Your task to perform on an android device: Open Yahoo.com Image 0: 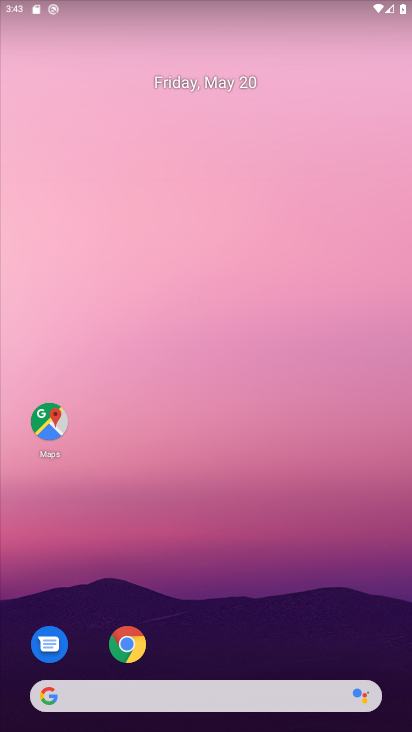
Step 0: drag from (261, 704) to (326, 99)
Your task to perform on an android device: Open Yahoo.com Image 1: 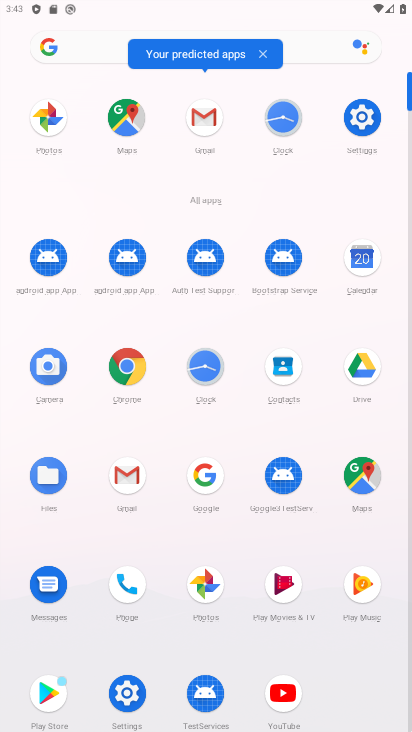
Step 1: click (125, 363)
Your task to perform on an android device: Open Yahoo.com Image 2: 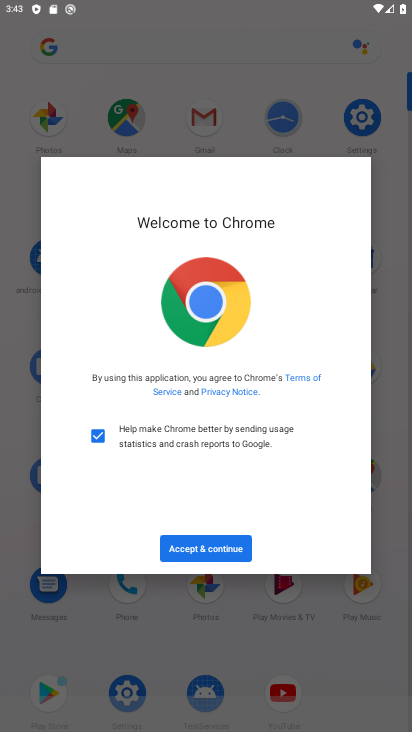
Step 2: click (195, 546)
Your task to perform on an android device: Open Yahoo.com Image 3: 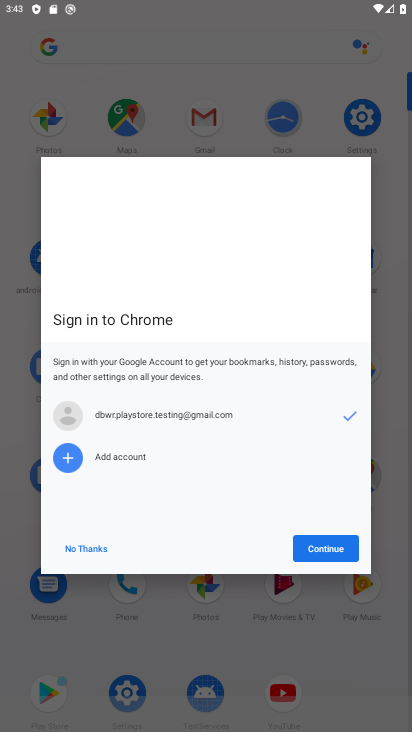
Step 3: click (308, 542)
Your task to perform on an android device: Open Yahoo.com Image 4: 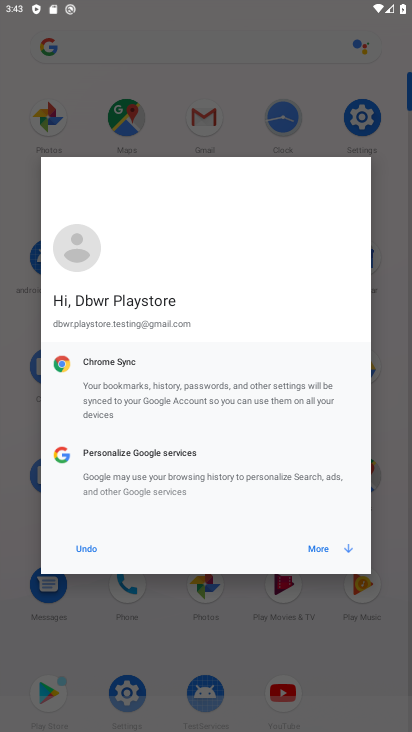
Step 4: click (339, 550)
Your task to perform on an android device: Open Yahoo.com Image 5: 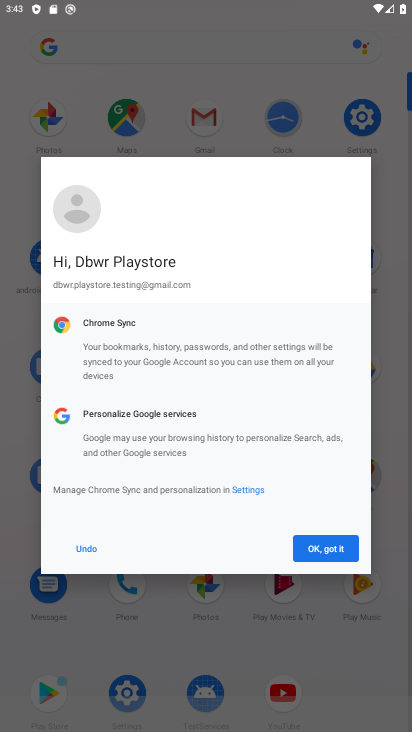
Step 5: click (337, 546)
Your task to perform on an android device: Open Yahoo.com Image 6: 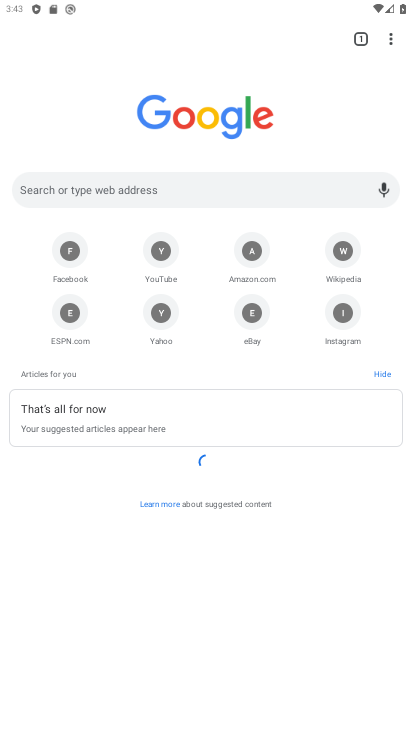
Step 6: click (161, 312)
Your task to perform on an android device: Open Yahoo.com Image 7: 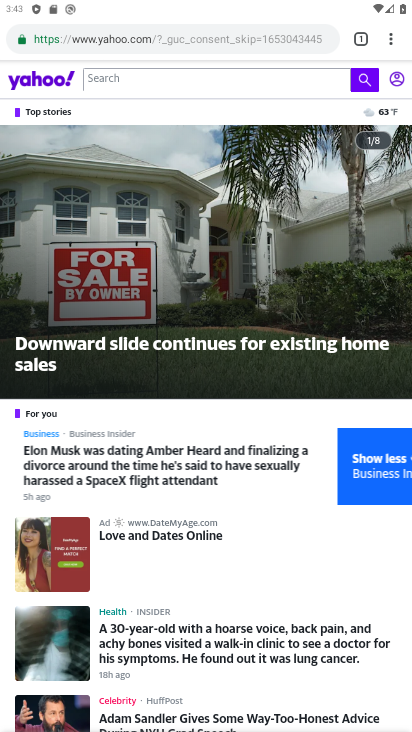
Step 7: task complete